Your task to perform on an android device: Go to Wikipedia Image 0: 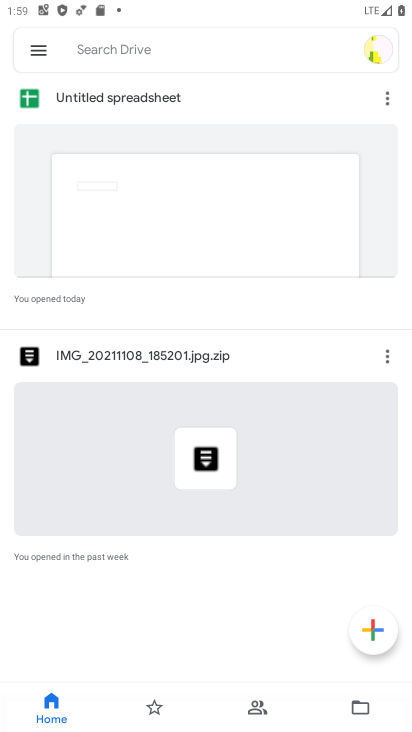
Step 0: press home button
Your task to perform on an android device: Go to Wikipedia Image 1: 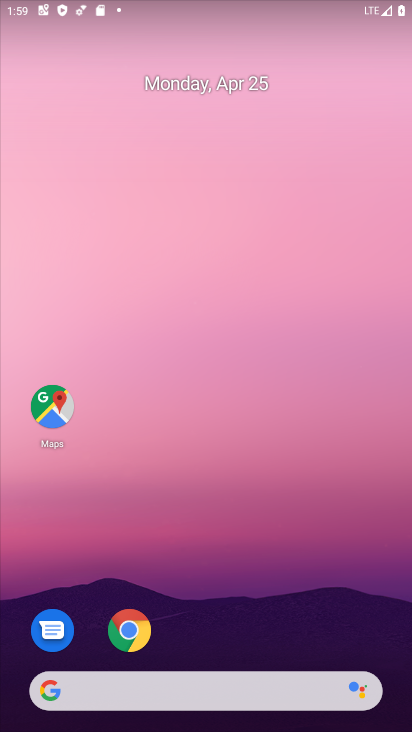
Step 1: drag from (373, 618) to (407, 82)
Your task to perform on an android device: Go to Wikipedia Image 2: 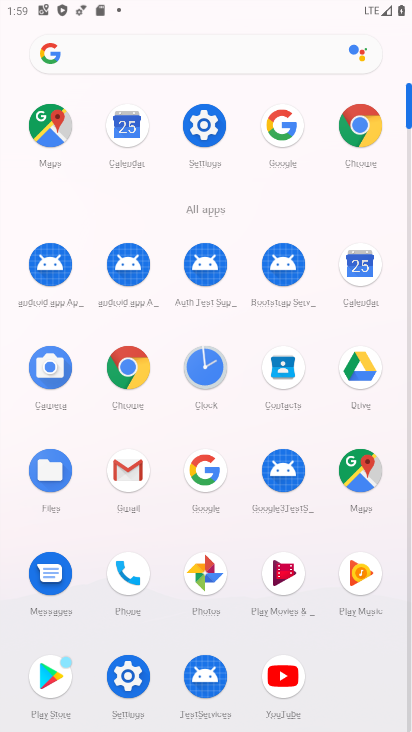
Step 2: click (364, 118)
Your task to perform on an android device: Go to Wikipedia Image 3: 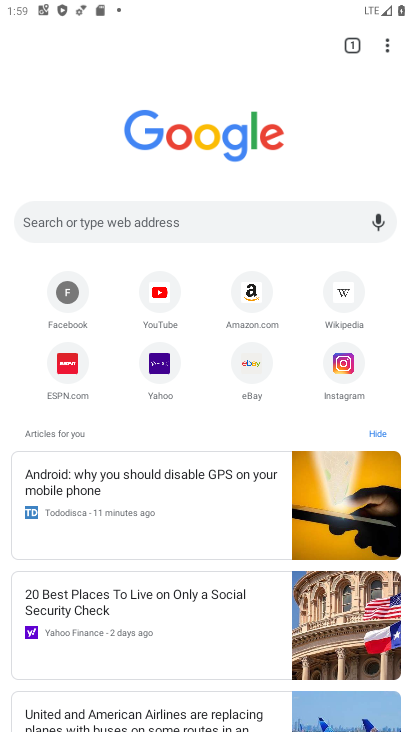
Step 3: click (351, 299)
Your task to perform on an android device: Go to Wikipedia Image 4: 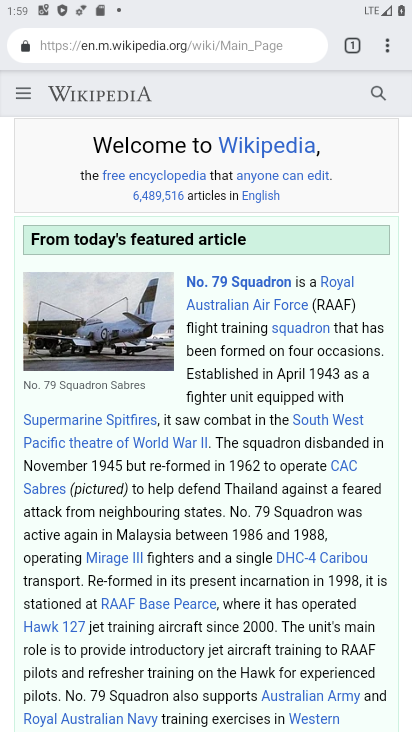
Step 4: task complete